Your task to perform on an android device: open device folders in google photos Image 0: 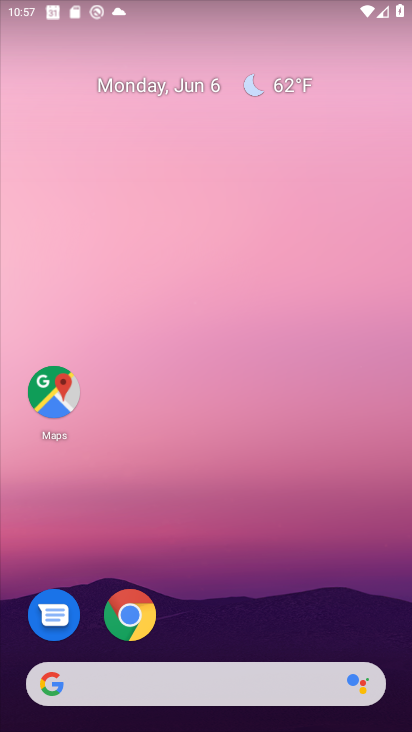
Step 0: drag from (333, 691) to (210, 80)
Your task to perform on an android device: open device folders in google photos Image 1: 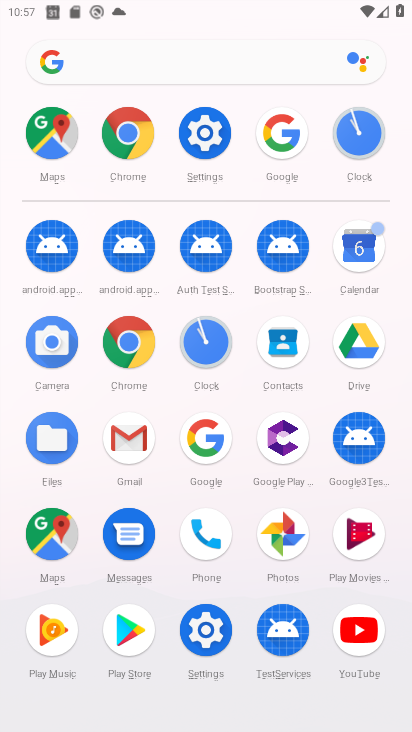
Step 1: click (279, 536)
Your task to perform on an android device: open device folders in google photos Image 2: 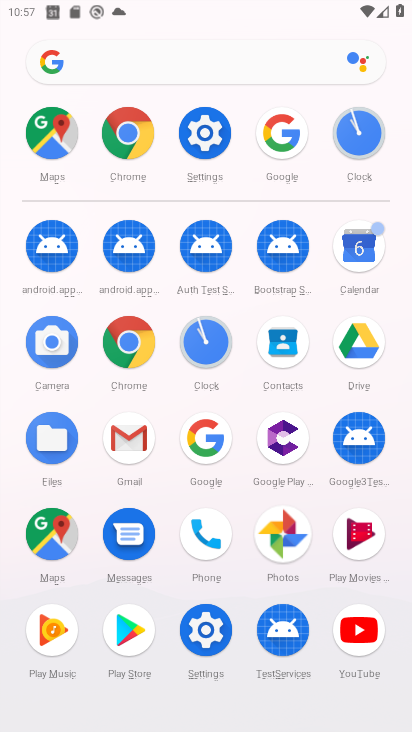
Step 2: click (279, 536)
Your task to perform on an android device: open device folders in google photos Image 3: 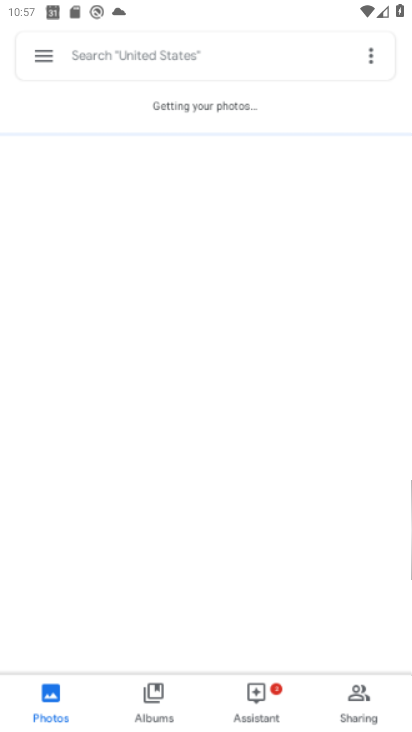
Step 3: click (284, 536)
Your task to perform on an android device: open device folders in google photos Image 4: 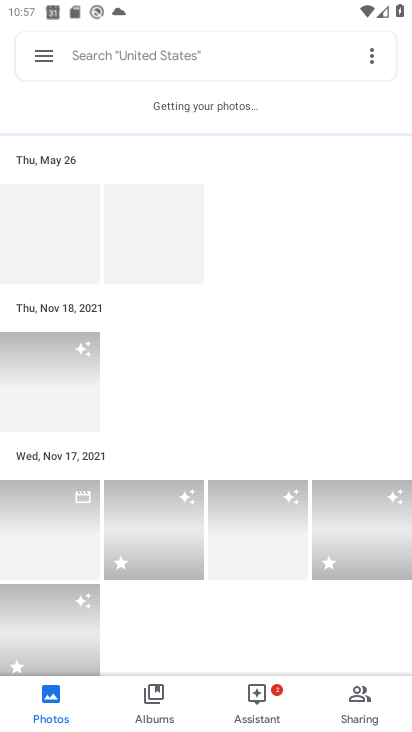
Step 4: click (285, 534)
Your task to perform on an android device: open device folders in google photos Image 5: 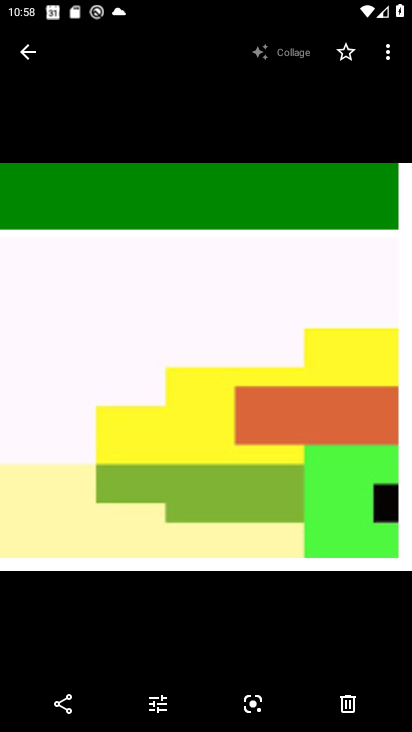
Step 5: click (26, 59)
Your task to perform on an android device: open device folders in google photos Image 6: 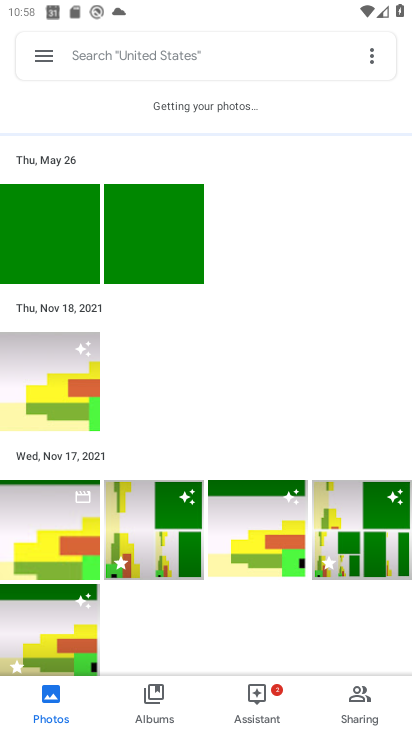
Step 6: click (43, 68)
Your task to perform on an android device: open device folders in google photos Image 7: 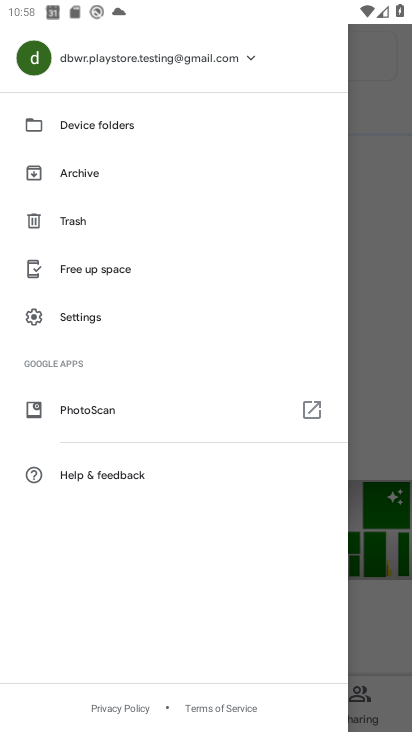
Step 7: click (82, 138)
Your task to perform on an android device: open device folders in google photos Image 8: 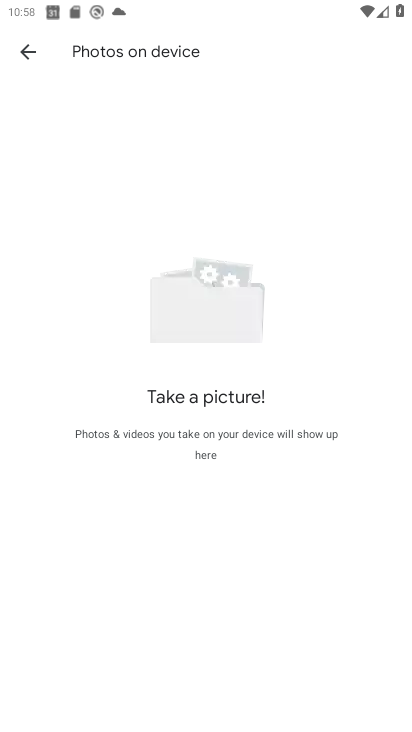
Step 8: task complete